Your task to perform on an android device: Go to display settings Image 0: 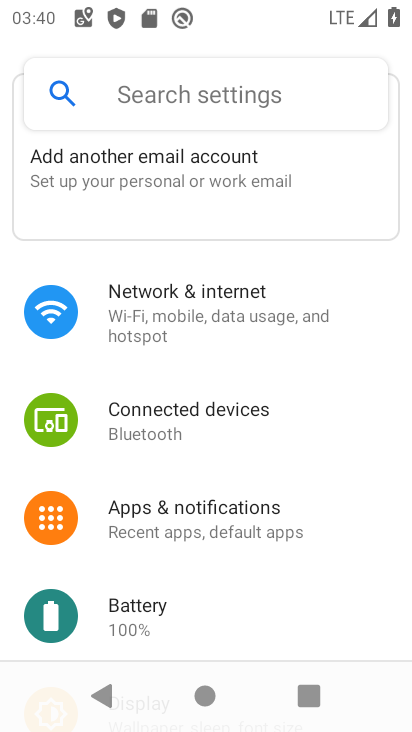
Step 0: drag from (322, 558) to (259, 180)
Your task to perform on an android device: Go to display settings Image 1: 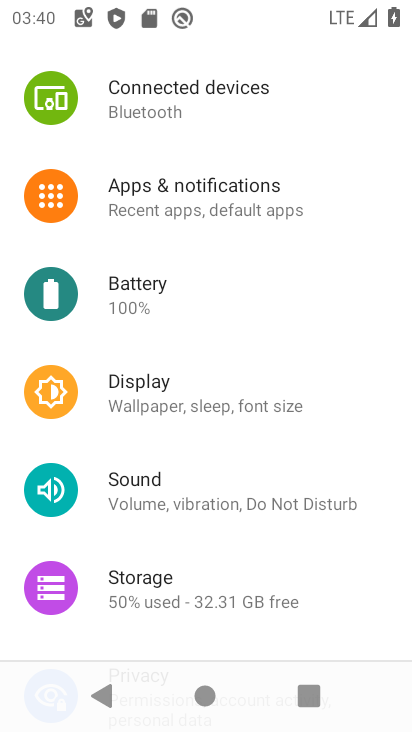
Step 1: click (166, 387)
Your task to perform on an android device: Go to display settings Image 2: 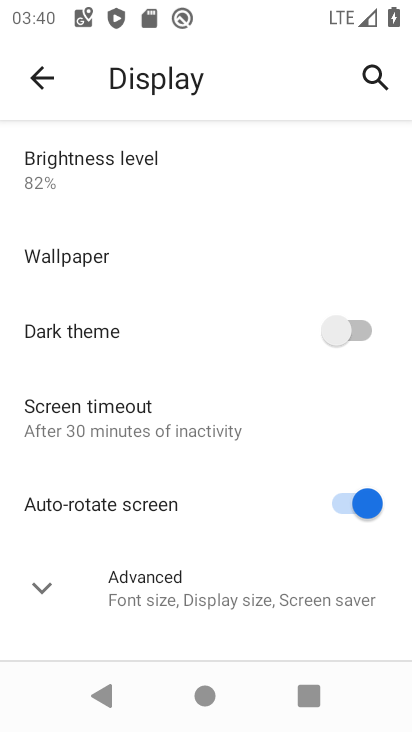
Step 2: task complete